Your task to perform on an android device: turn pop-ups off in chrome Image 0: 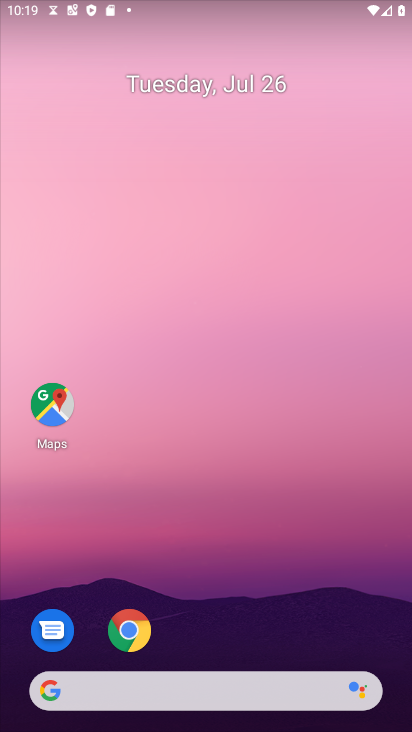
Step 0: click (118, 656)
Your task to perform on an android device: turn pop-ups off in chrome Image 1: 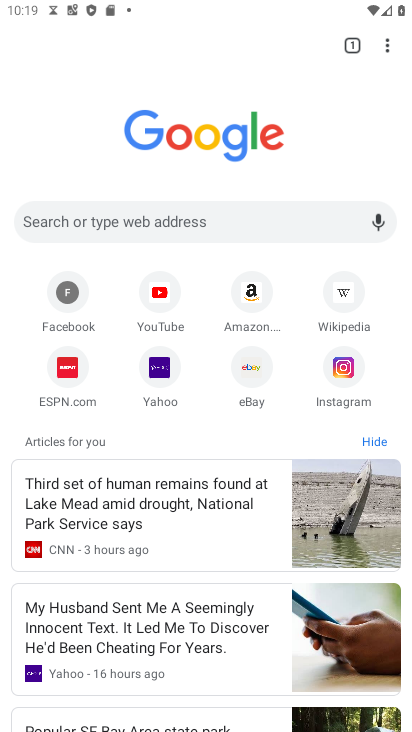
Step 1: click (384, 44)
Your task to perform on an android device: turn pop-ups off in chrome Image 2: 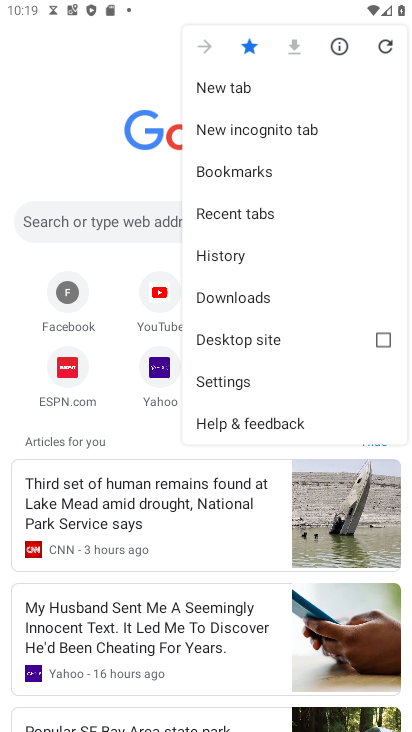
Step 2: click (234, 377)
Your task to perform on an android device: turn pop-ups off in chrome Image 3: 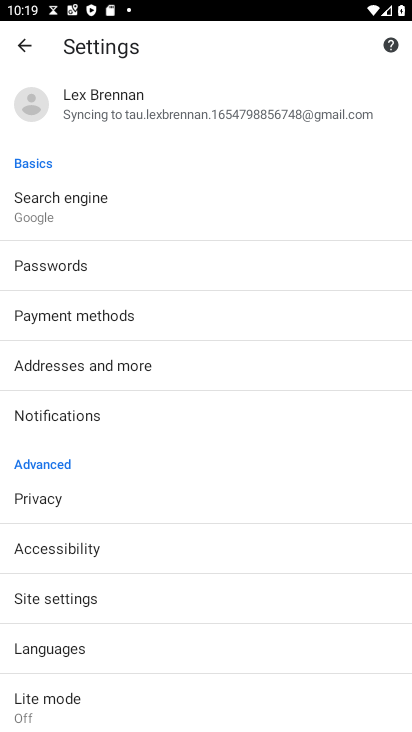
Step 3: click (57, 600)
Your task to perform on an android device: turn pop-ups off in chrome Image 4: 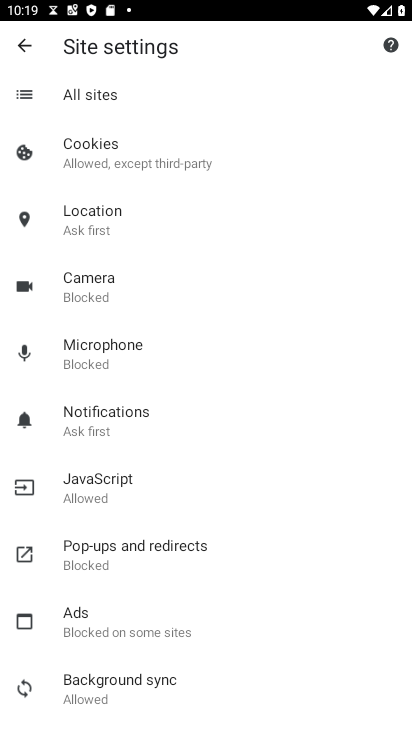
Step 4: click (94, 557)
Your task to perform on an android device: turn pop-ups off in chrome Image 5: 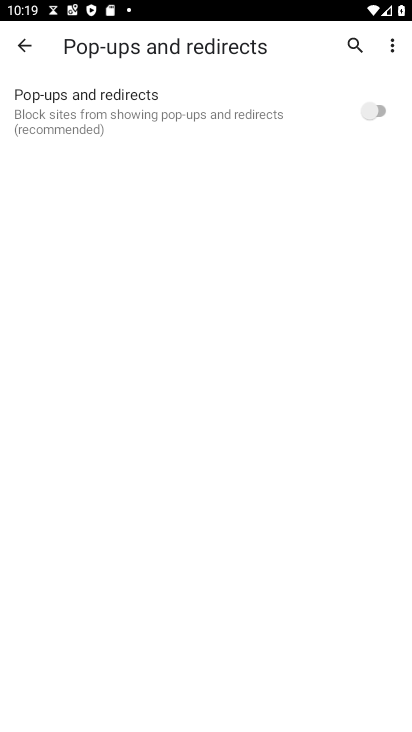
Step 5: task complete